Your task to perform on an android device: change timer sound Image 0: 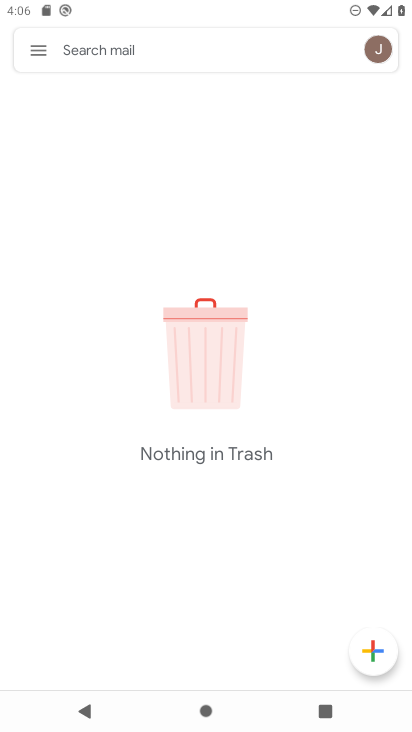
Step 0: press home button
Your task to perform on an android device: change timer sound Image 1: 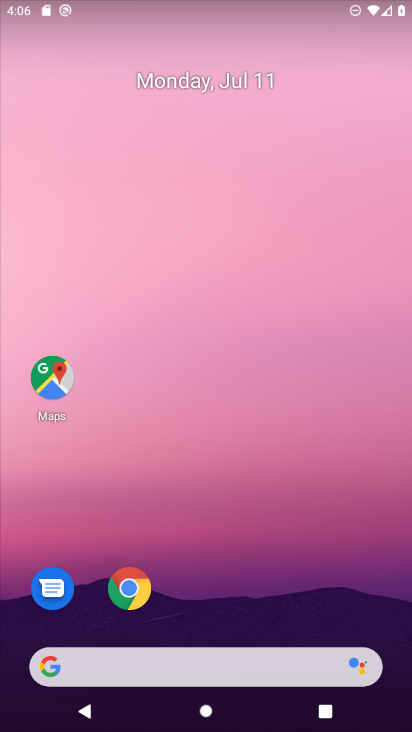
Step 1: drag from (257, 608) to (222, 84)
Your task to perform on an android device: change timer sound Image 2: 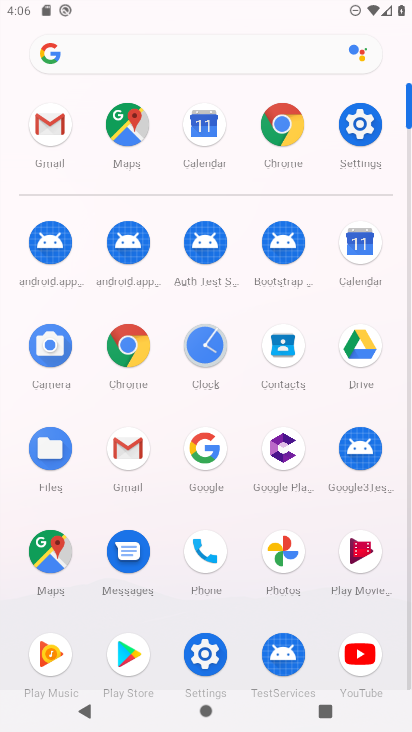
Step 2: click (220, 351)
Your task to perform on an android device: change timer sound Image 3: 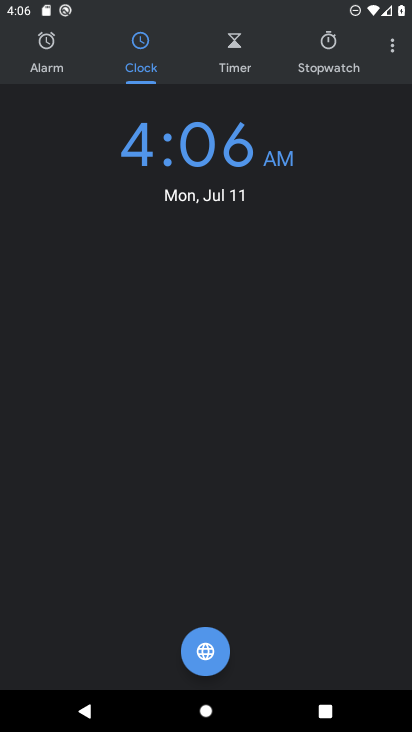
Step 3: click (390, 50)
Your task to perform on an android device: change timer sound Image 4: 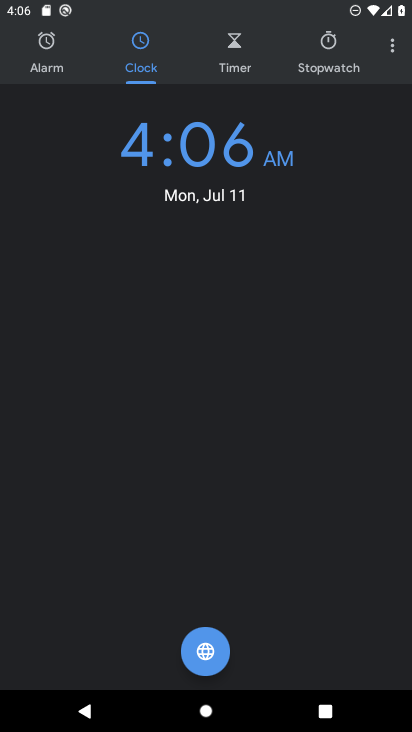
Step 4: click (391, 50)
Your task to perform on an android device: change timer sound Image 5: 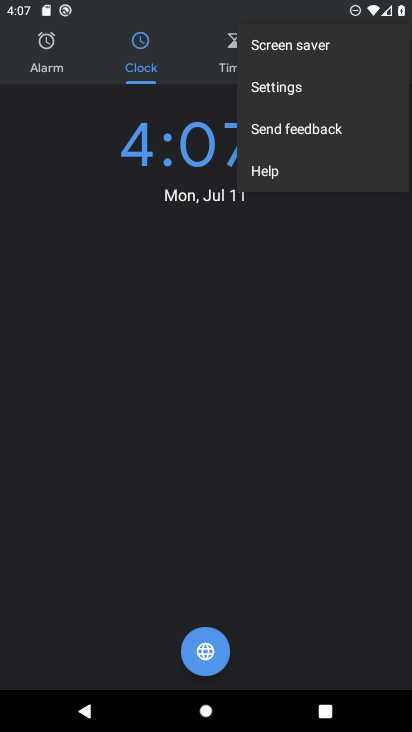
Step 5: click (268, 82)
Your task to perform on an android device: change timer sound Image 6: 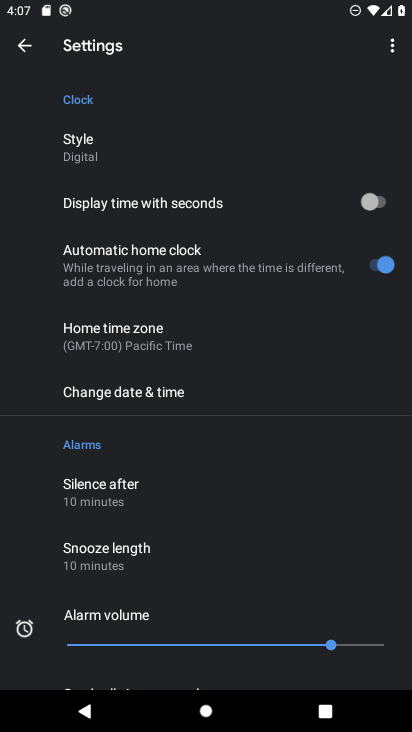
Step 6: drag from (274, 506) to (248, 183)
Your task to perform on an android device: change timer sound Image 7: 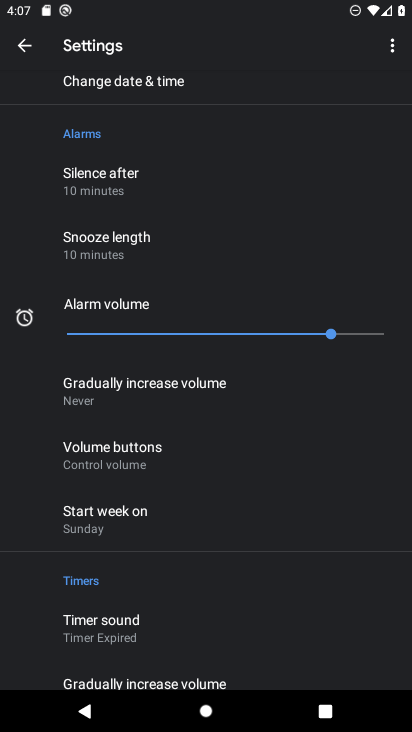
Step 7: click (102, 642)
Your task to perform on an android device: change timer sound Image 8: 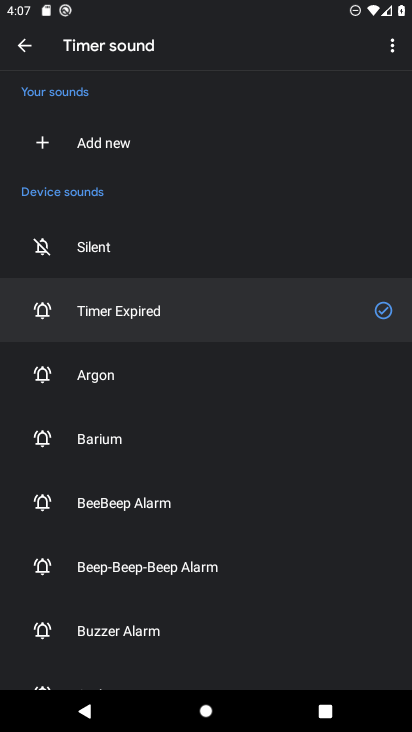
Step 8: click (110, 374)
Your task to perform on an android device: change timer sound Image 9: 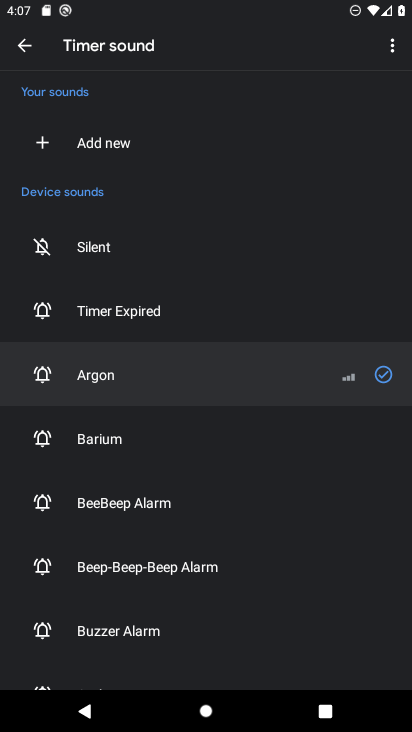
Step 9: task complete